Your task to perform on an android device: find photos in the google photos app Image 0: 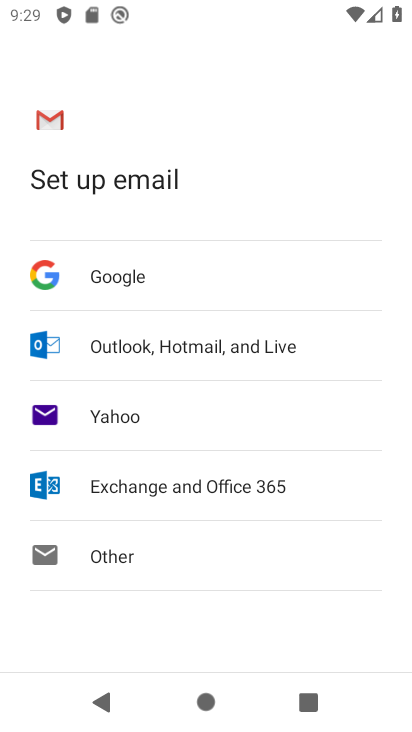
Step 0: task complete